Your task to perform on an android device: toggle wifi Image 0: 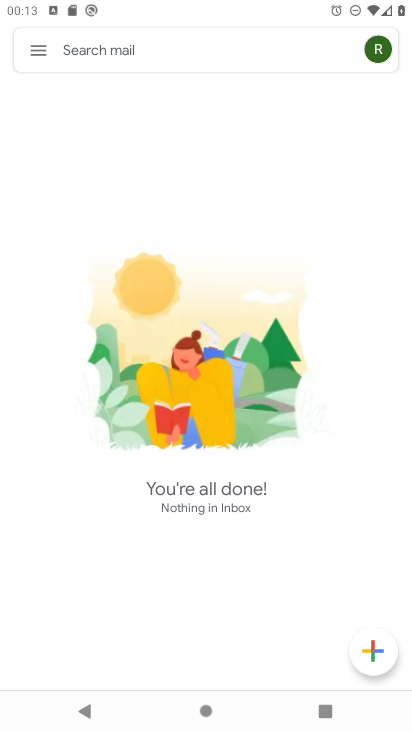
Step 0: press home button
Your task to perform on an android device: toggle wifi Image 1: 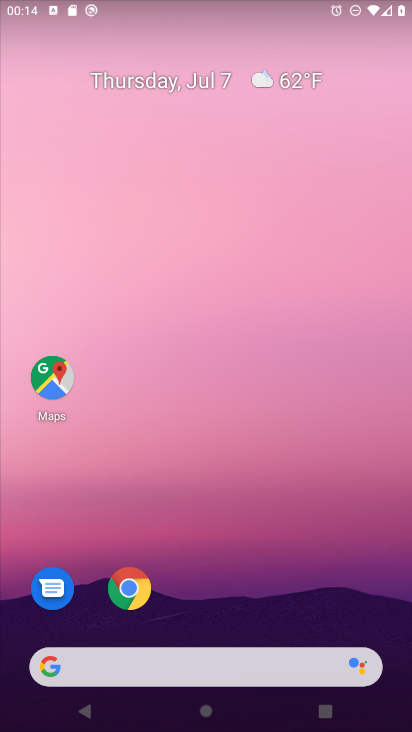
Step 1: drag from (364, 615) to (336, 103)
Your task to perform on an android device: toggle wifi Image 2: 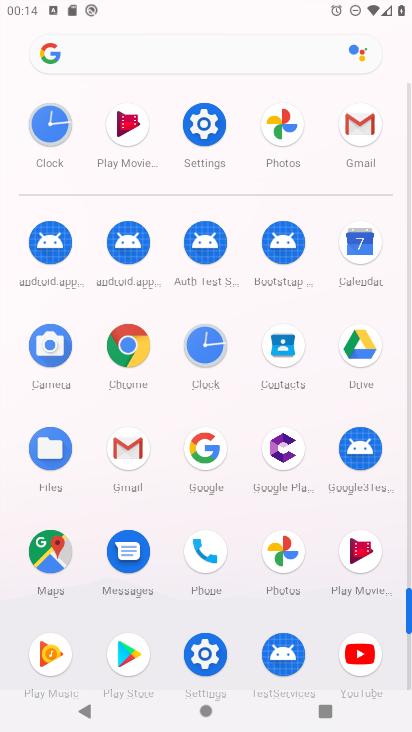
Step 2: click (205, 656)
Your task to perform on an android device: toggle wifi Image 3: 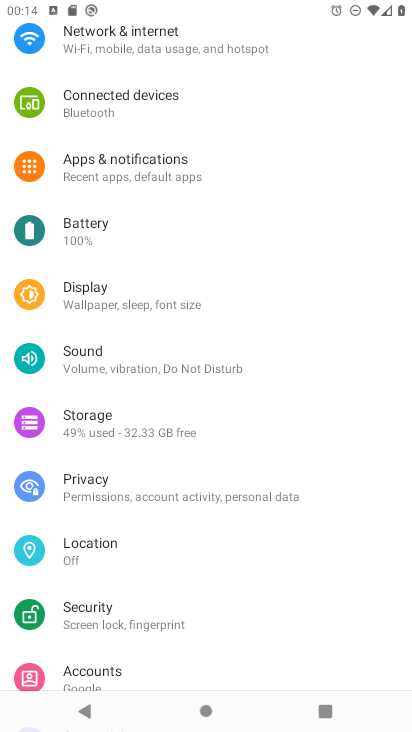
Step 3: drag from (306, 199) to (305, 479)
Your task to perform on an android device: toggle wifi Image 4: 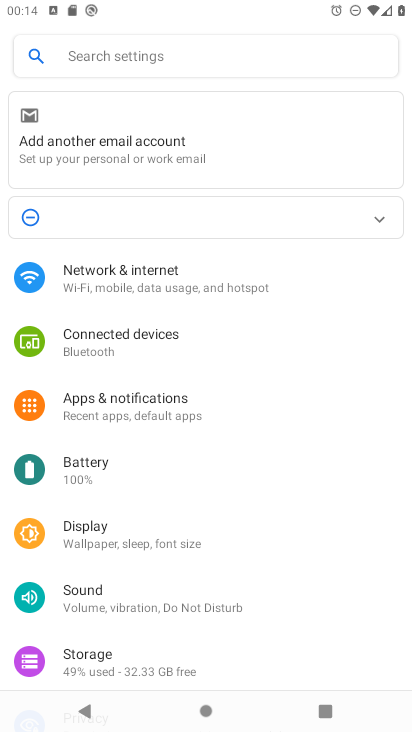
Step 4: click (116, 275)
Your task to perform on an android device: toggle wifi Image 5: 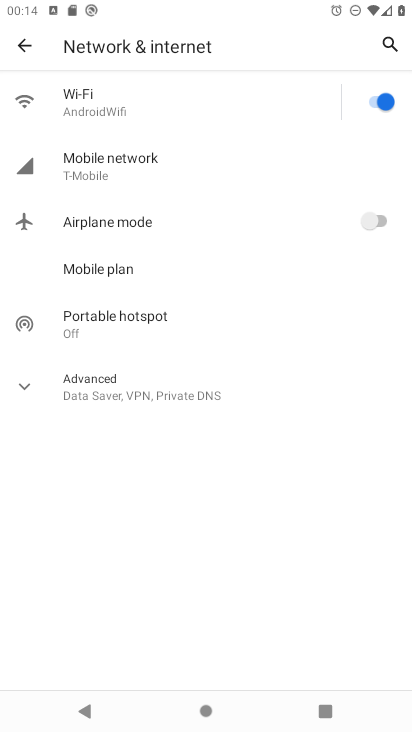
Step 5: click (372, 99)
Your task to perform on an android device: toggle wifi Image 6: 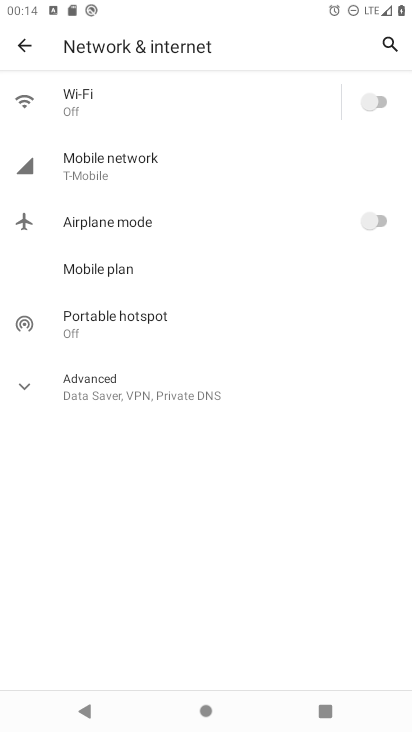
Step 6: task complete